Your task to perform on an android device: allow cookies in the chrome app Image 0: 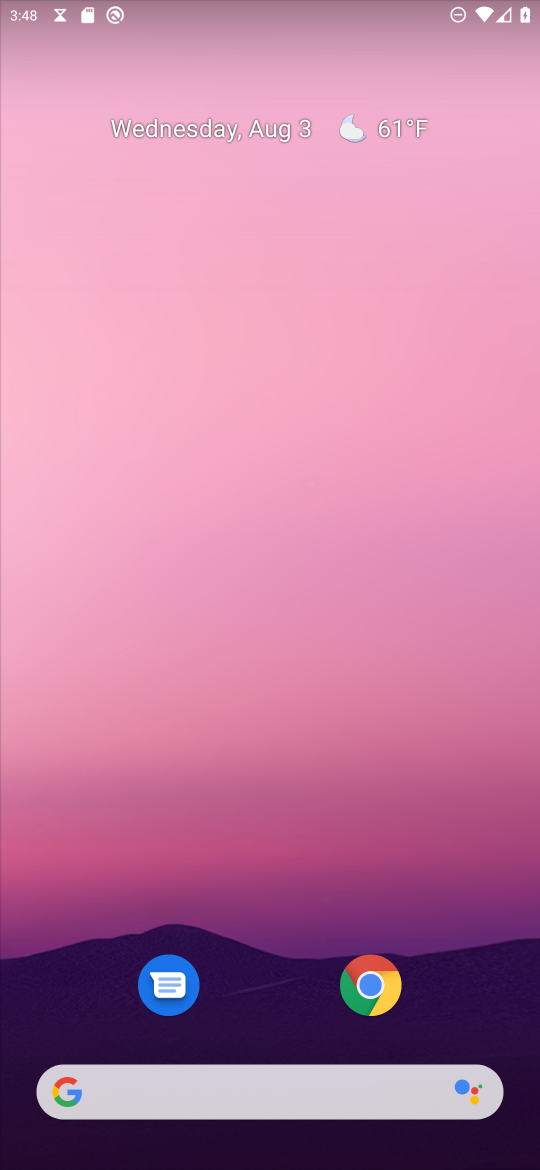
Step 0: click (375, 982)
Your task to perform on an android device: allow cookies in the chrome app Image 1: 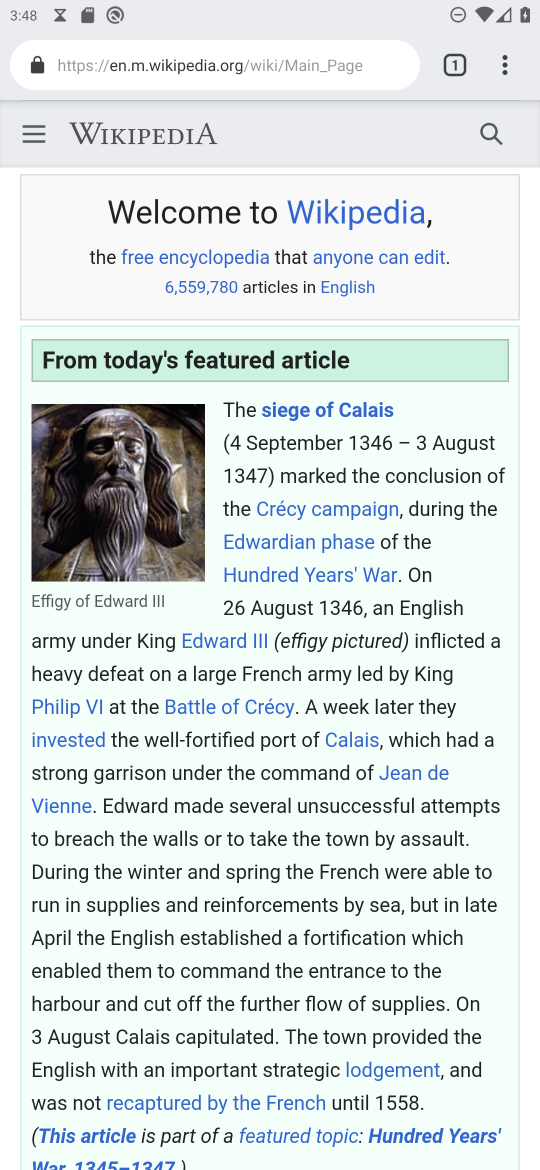
Step 1: click (504, 59)
Your task to perform on an android device: allow cookies in the chrome app Image 2: 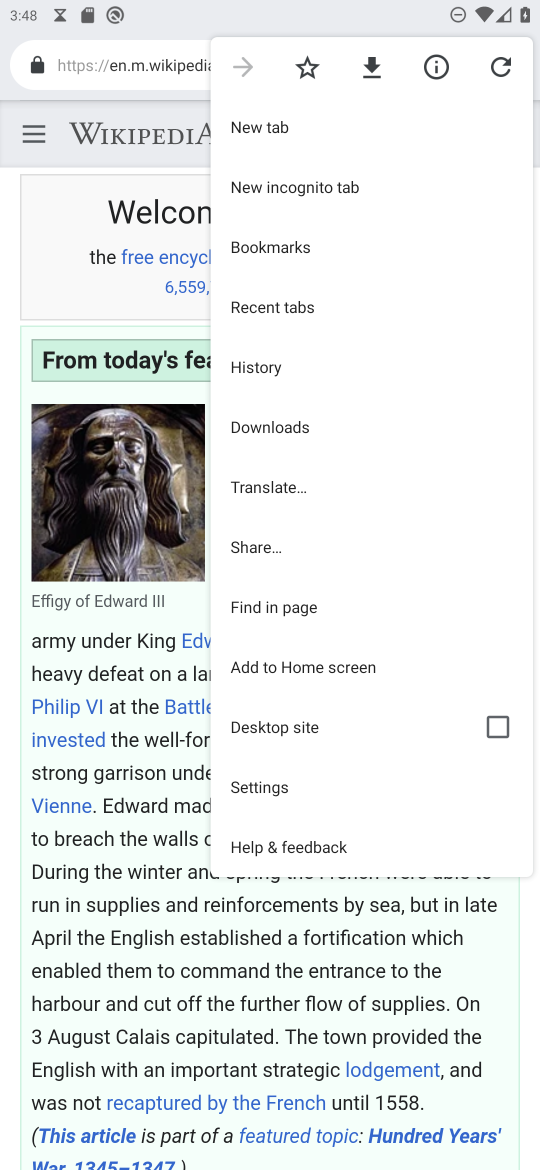
Step 2: click (305, 789)
Your task to perform on an android device: allow cookies in the chrome app Image 3: 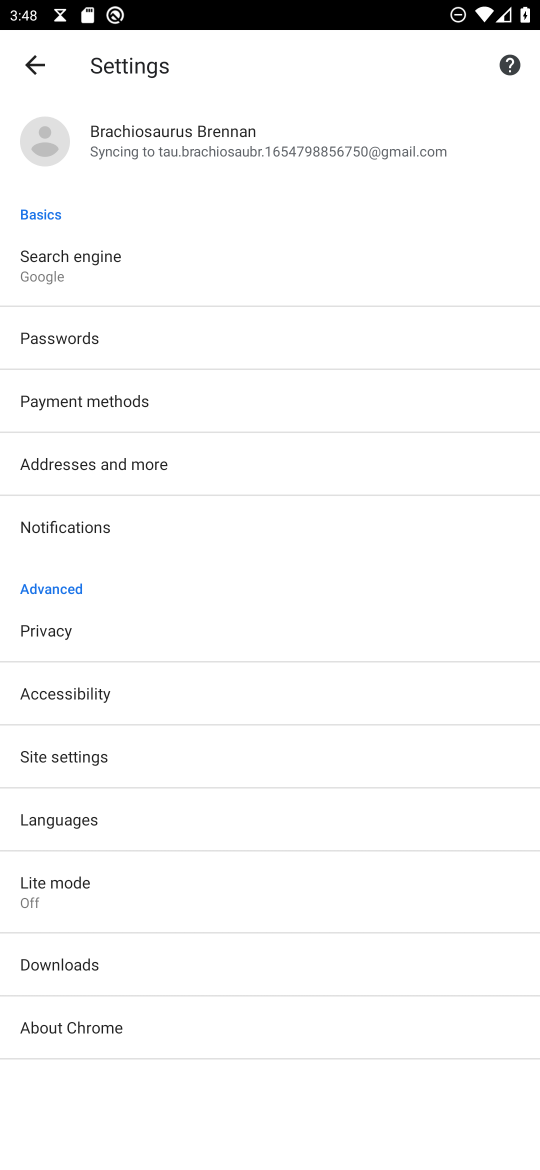
Step 3: click (105, 757)
Your task to perform on an android device: allow cookies in the chrome app Image 4: 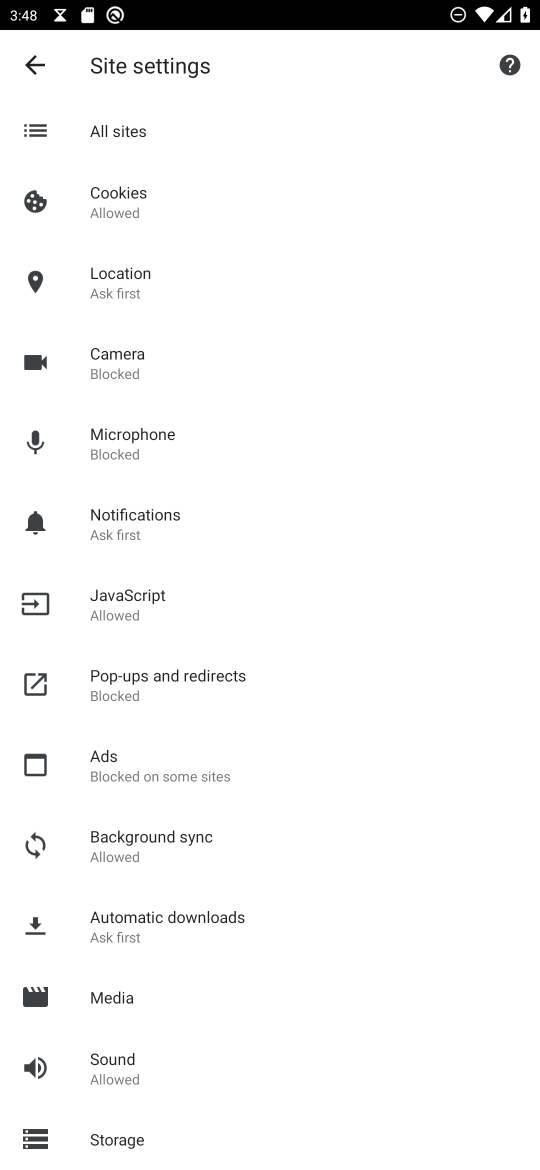
Step 4: click (93, 216)
Your task to perform on an android device: allow cookies in the chrome app Image 5: 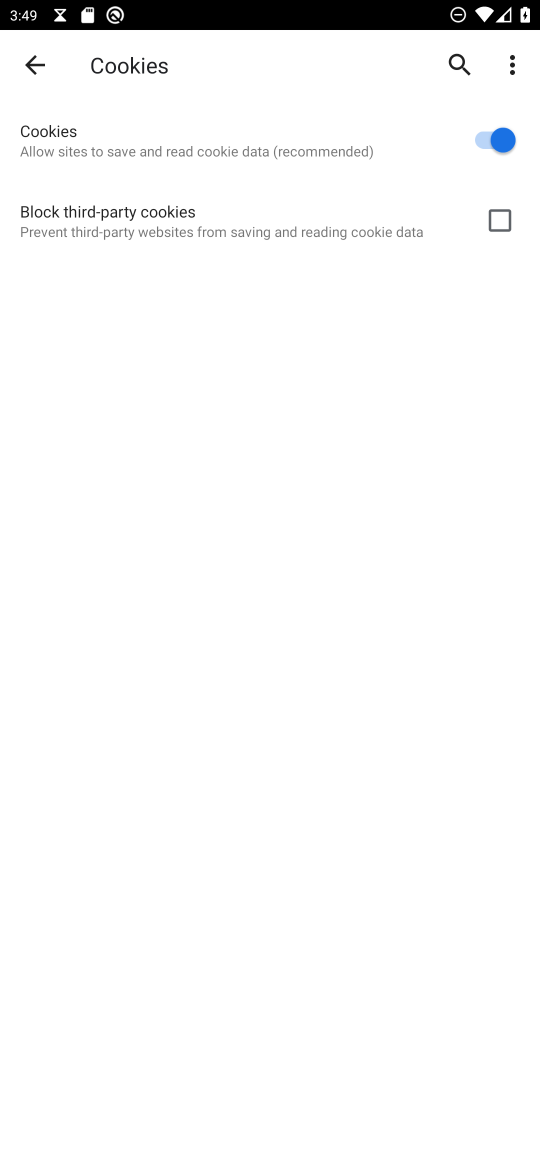
Step 5: task complete